Your task to perform on an android device: Go to internet settings Image 0: 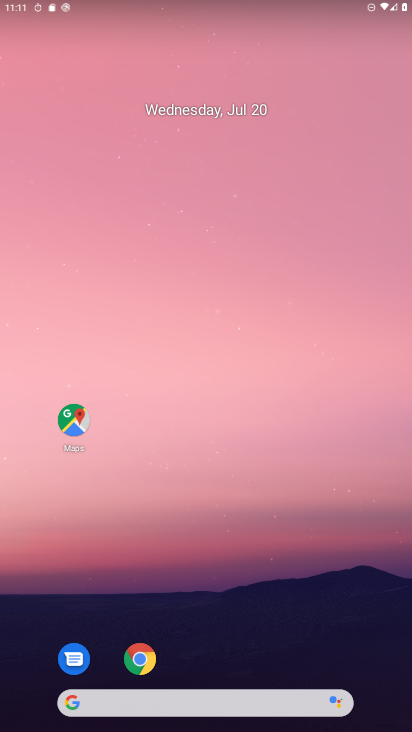
Step 0: drag from (331, 603) to (244, 113)
Your task to perform on an android device: Go to internet settings Image 1: 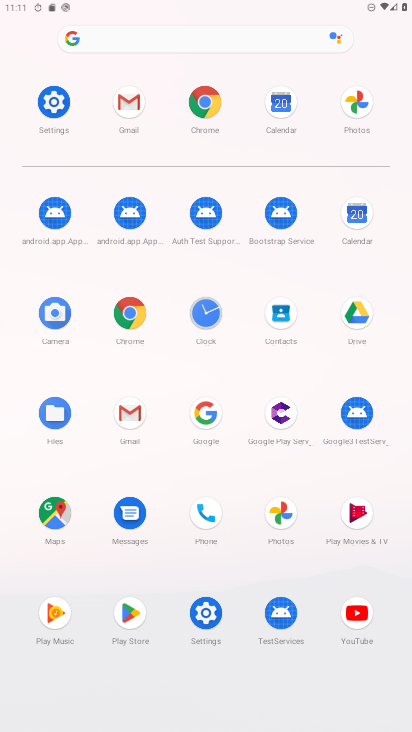
Step 1: click (54, 102)
Your task to perform on an android device: Go to internet settings Image 2: 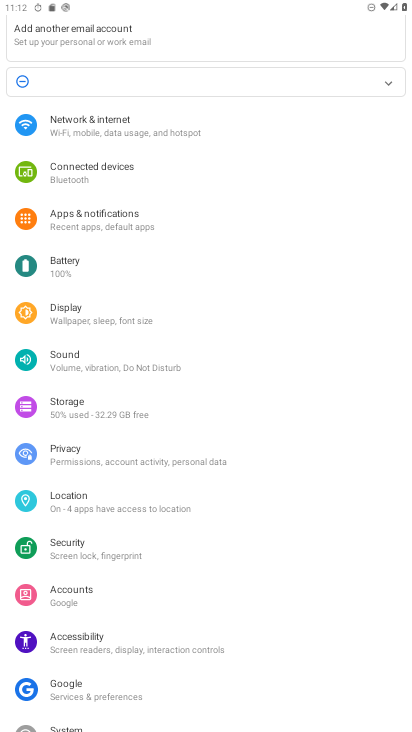
Step 2: click (110, 127)
Your task to perform on an android device: Go to internet settings Image 3: 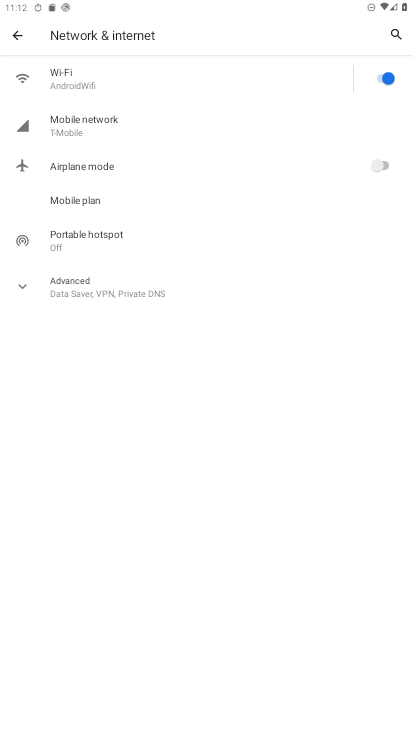
Step 3: click (107, 279)
Your task to perform on an android device: Go to internet settings Image 4: 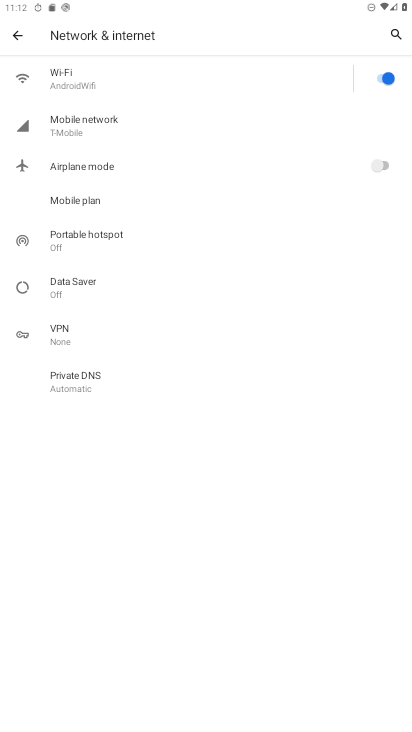
Step 4: task complete